Your task to perform on an android device: Open Reddit.com Image 0: 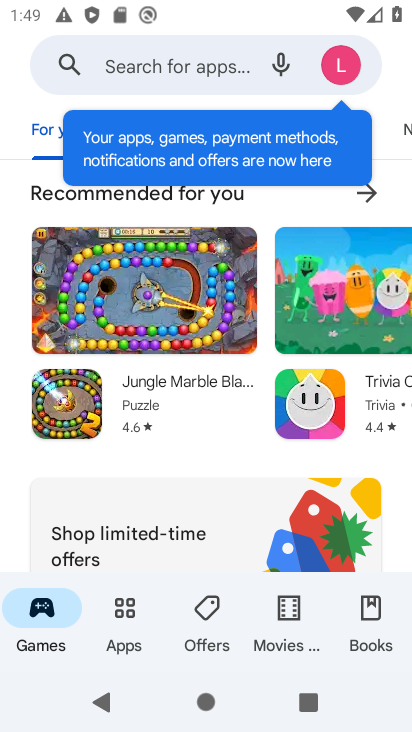
Step 0: press home button
Your task to perform on an android device: Open Reddit.com Image 1: 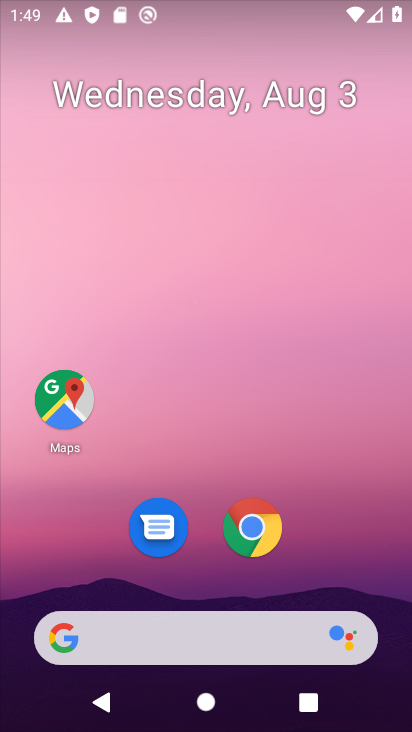
Step 1: click (251, 529)
Your task to perform on an android device: Open Reddit.com Image 2: 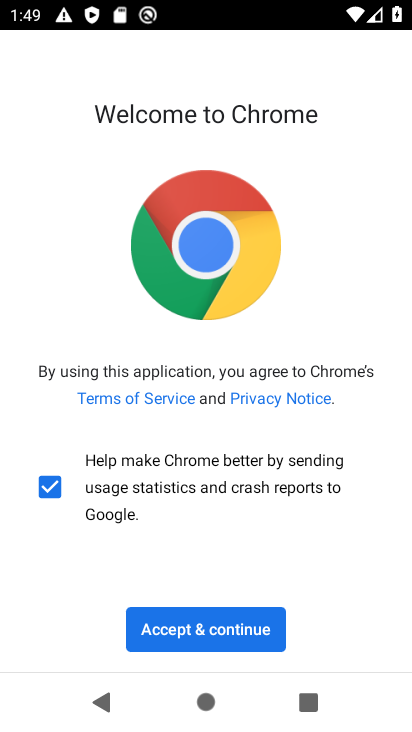
Step 2: click (192, 632)
Your task to perform on an android device: Open Reddit.com Image 3: 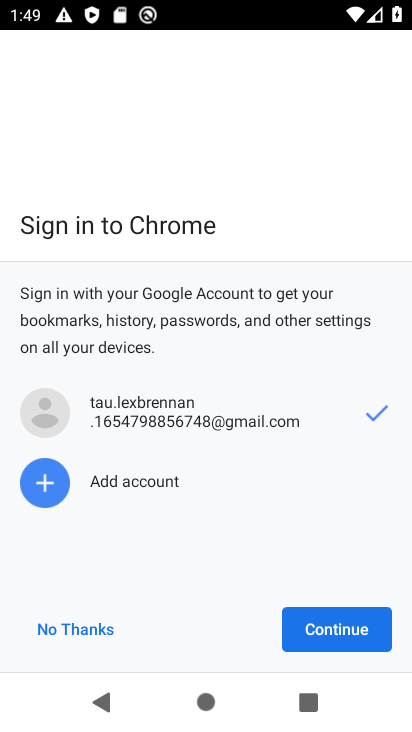
Step 3: click (377, 646)
Your task to perform on an android device: Open Reddit.com Image 4: 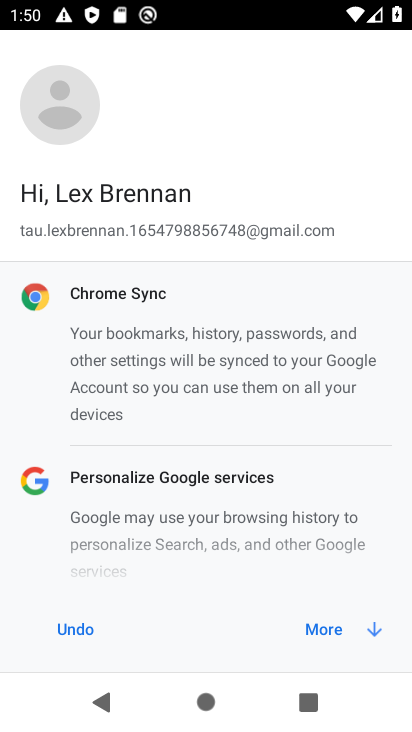
Step 4: click (324, 639)
Your task to perform on an android device: Open Reddit.com Image 5: 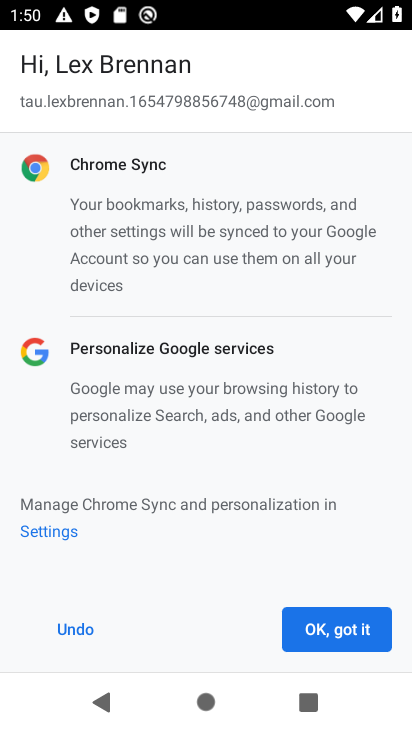
Step 5: click (324, 639)
Your task to perform on an android device: Open Reddit.com Image 6: 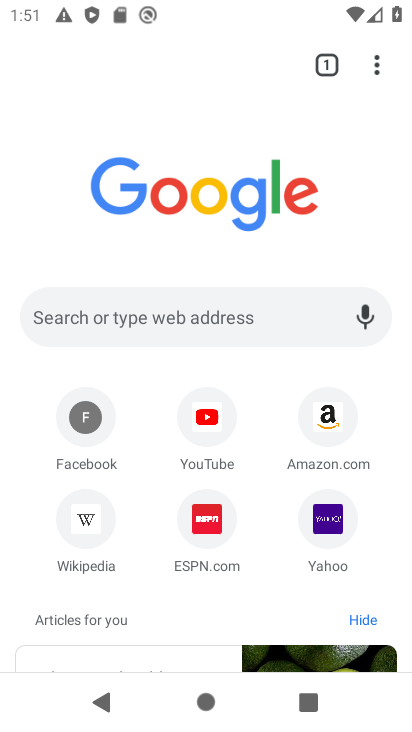
Step 6: click (197, 315)
Your task to perform on an android device: Open Reddit.com Image 7: 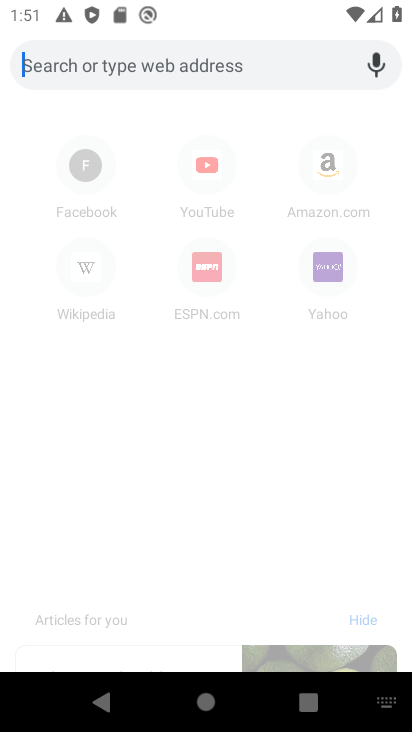
Step 7: type "www.reddit.com"
Your task to perform on an android device: Open Reddit.com Image 8: 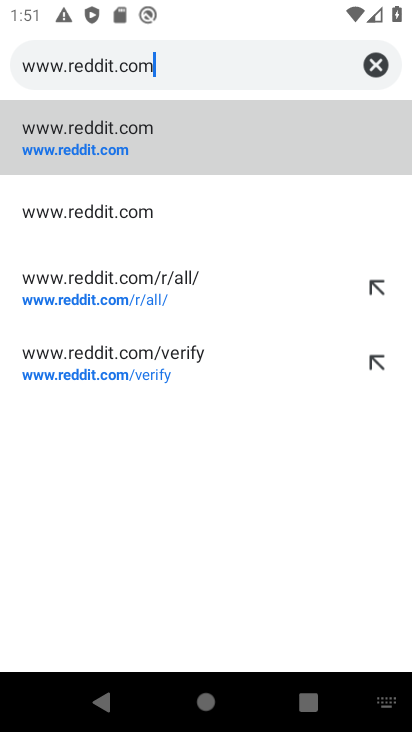
Step 8: click (83, 140)
Your task to perform on an android device: Open Reddit.com Image 9: 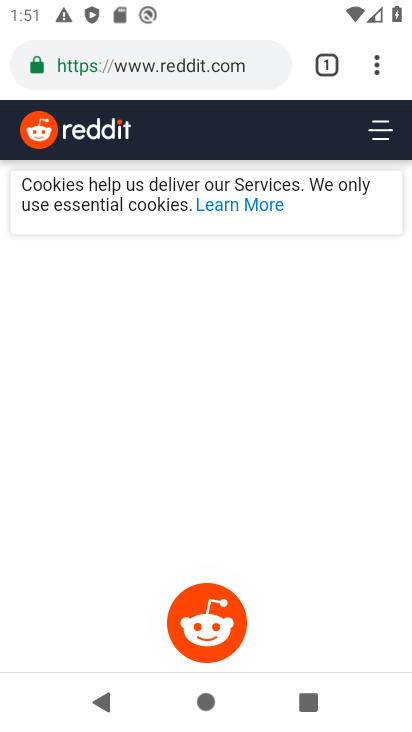
Step 9: task complete